Your task to perform on an android device: Go to Maps Image 0: 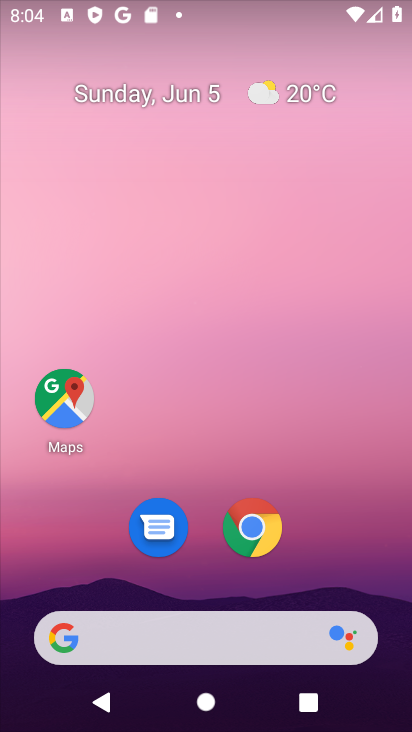
Step 0: click (67, 429)
Your task to perform on an android device: Go to Maps Image 1: 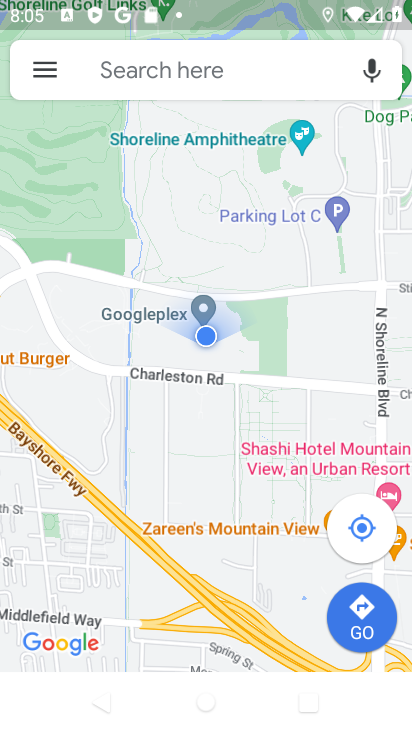
Step 1: task complete